Your task to perform on an android device: Look up the best rated gaming chair on Best Buy Image 0: 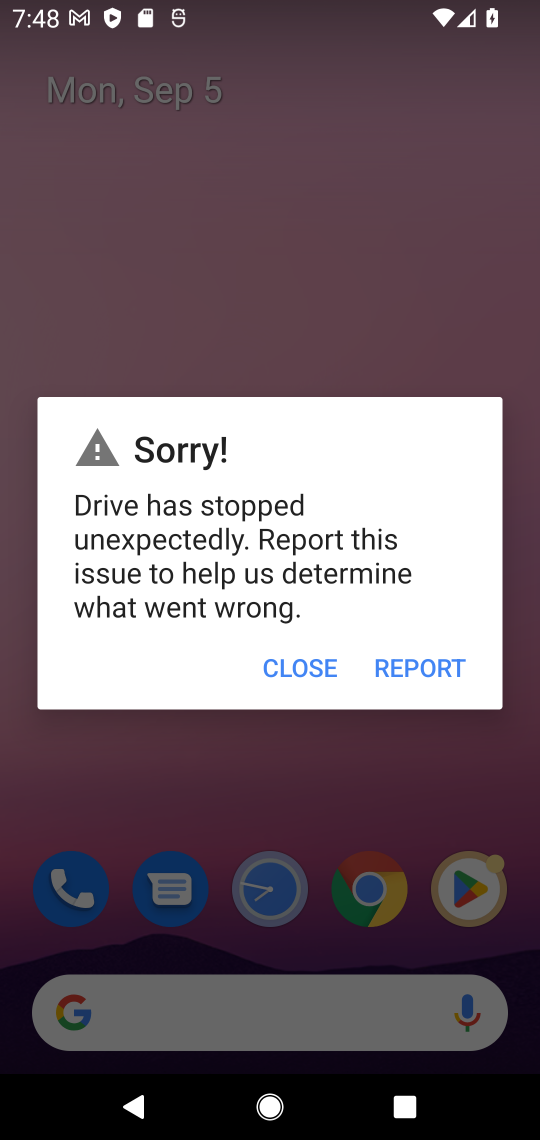
Step 0: press home button
Your task to perform on an android device: Look up the best rated gaming chair on Best Buy Image 1: 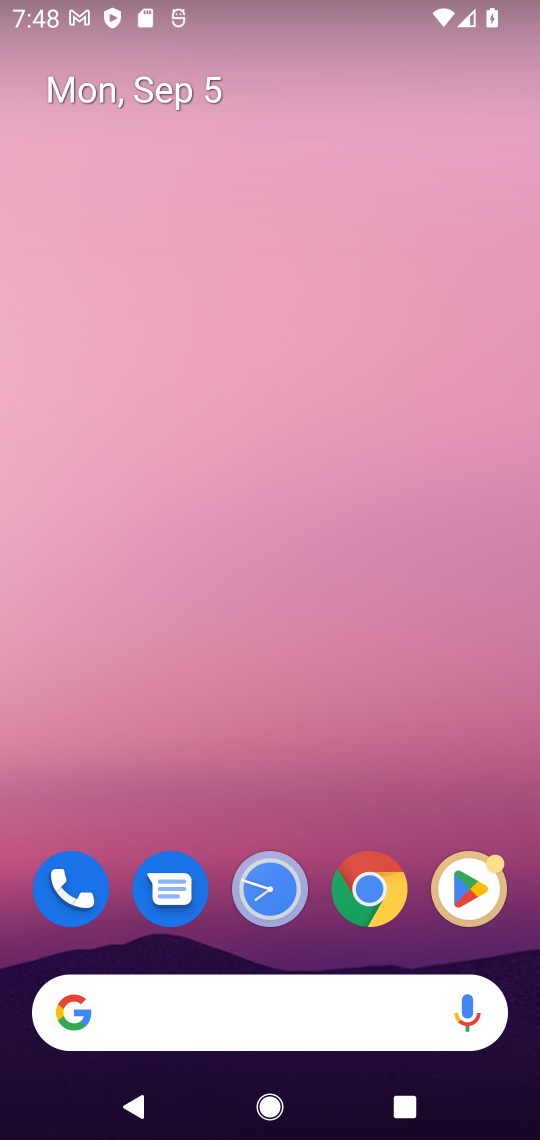
Step 1: click (260, 1012)
Your task to perform on an android device: Look up the best rated gaming chair on Best Buy Image 2: 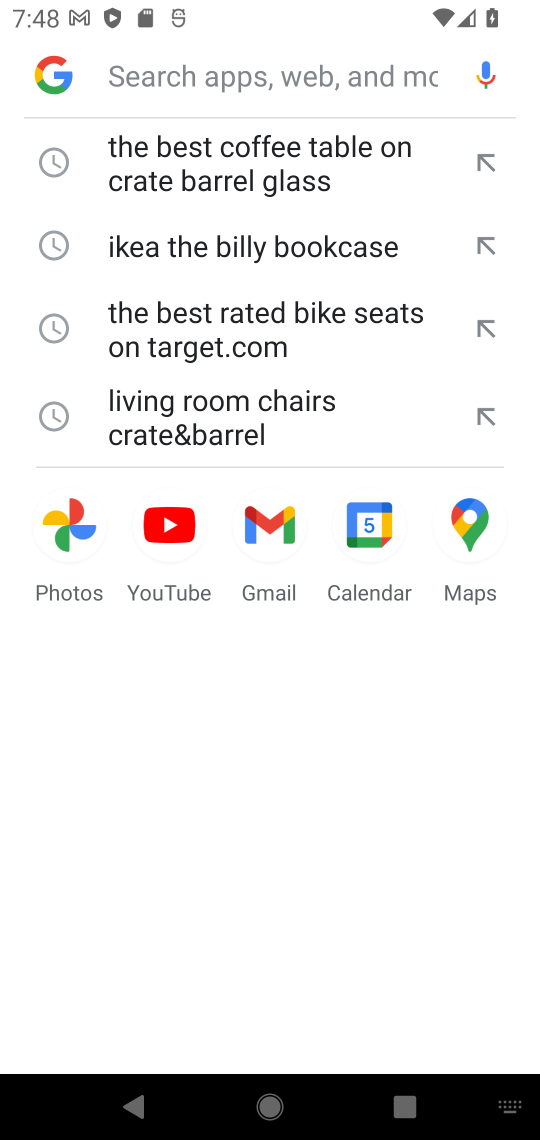
Step 2: type " the best rated gaming chair on Best Buy"
Your task to perform on an android device: Look up the best rated gaming chair on Best Buy Image 3: 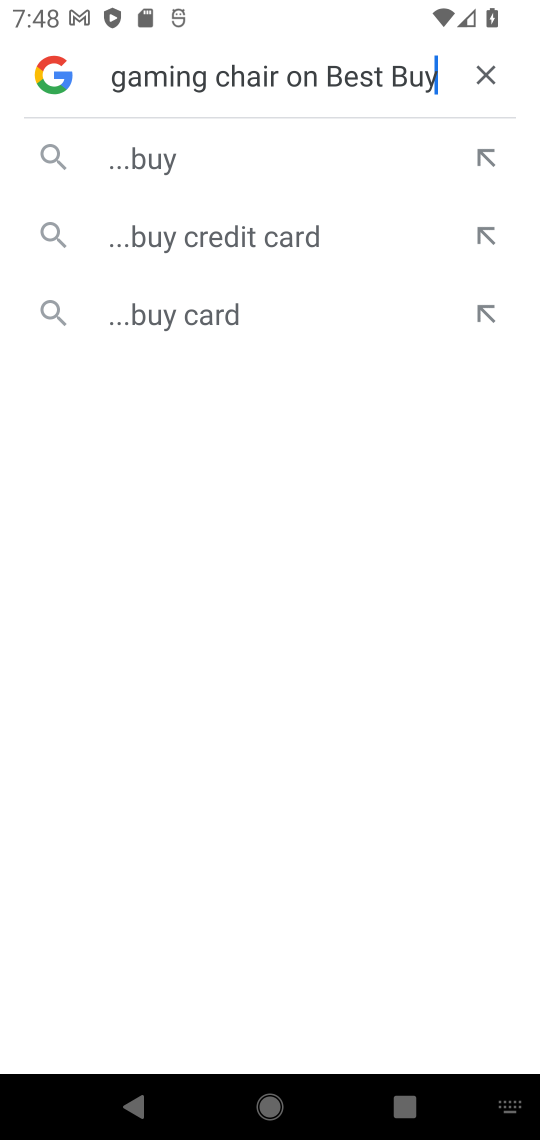
Step 3: click (180, 145)
Your task to perform on an android device: Look up the best rated gaming chair on Best Buy Image 4: 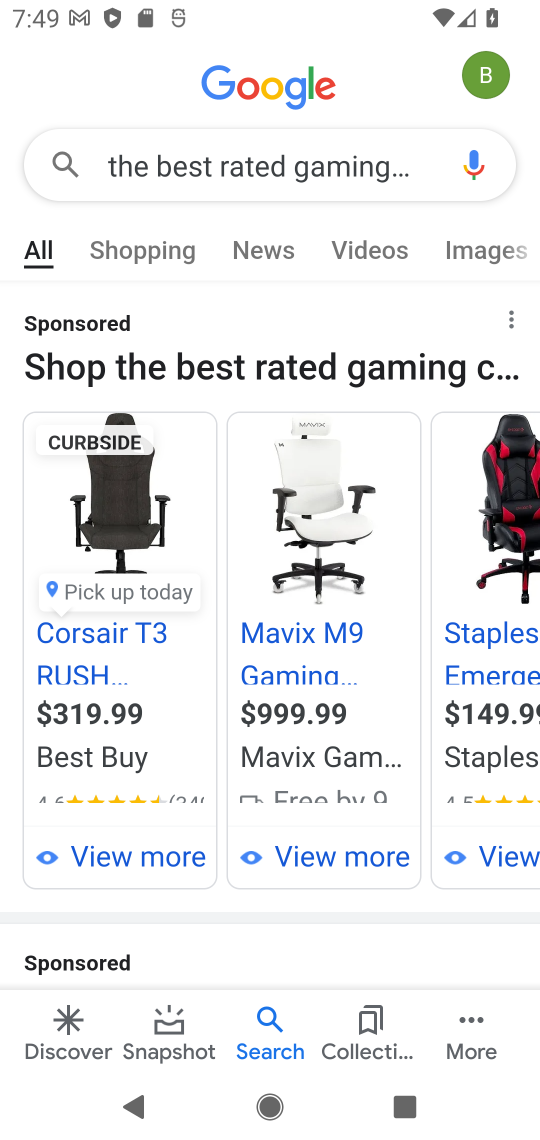
Step 4: task complete